Your task to perform on an android device: Open the web browser Image 0: 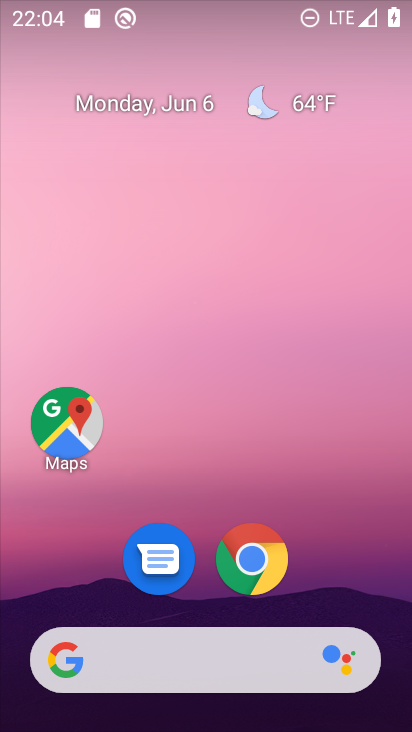
Step 0: click (262, 564)
Your task to perform on an android device: Open the web browser Image 1: 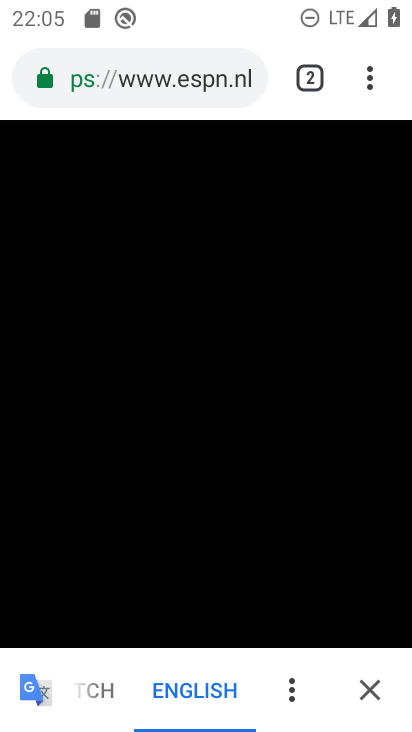
Step 1: task complete